Your task to perform on an android device: Go to Google Image 0: 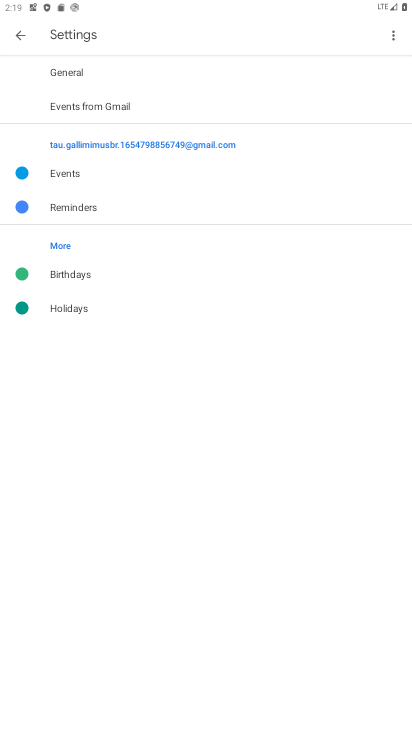
Step 0: press home button
Your task to perform on an android device: Go to Google Image 1: 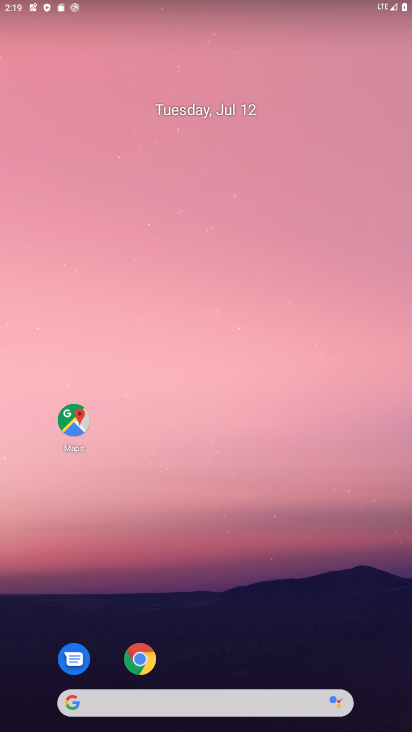
Step 1: drag from (208, 731) to (208, 325)
Your task to perform on an android device: Go to Google Image 2: 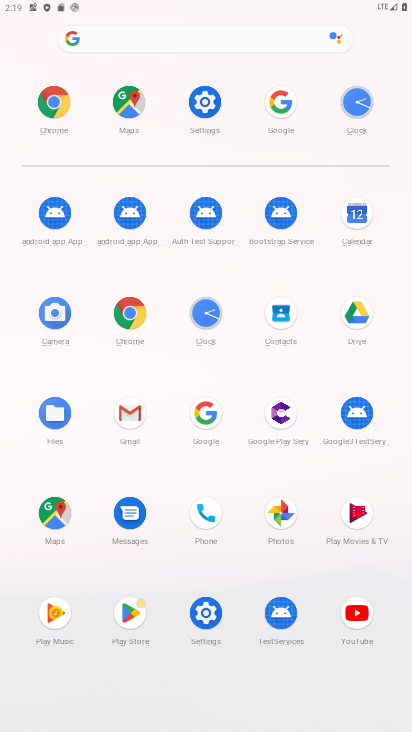
Step 2: click (205, 410)
Your task to perform on an android device: Go to Google Image 3: 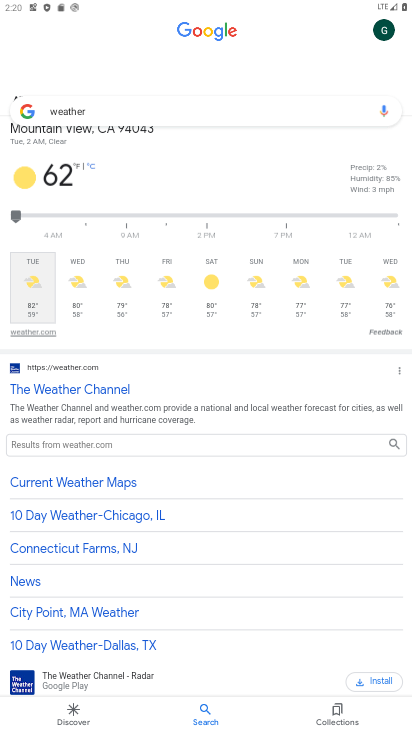
Step 3: task complete